Your task to perform on an android device: turn on showing notifications on the lock screen Image 0: 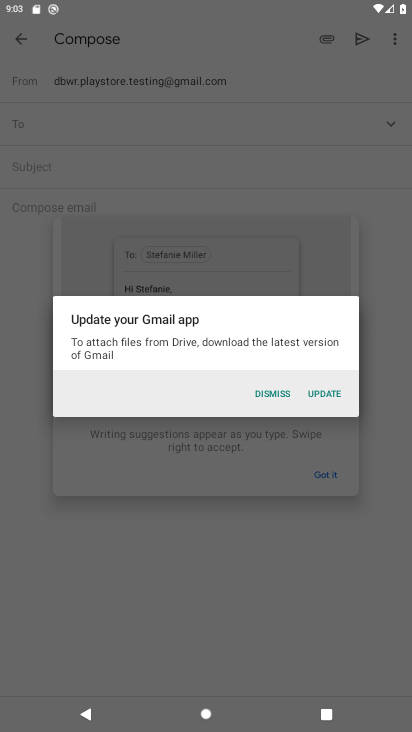
Step 0: press home button
Your task to perform on an android device: turn on showing notifications on the lock screen Image 1: 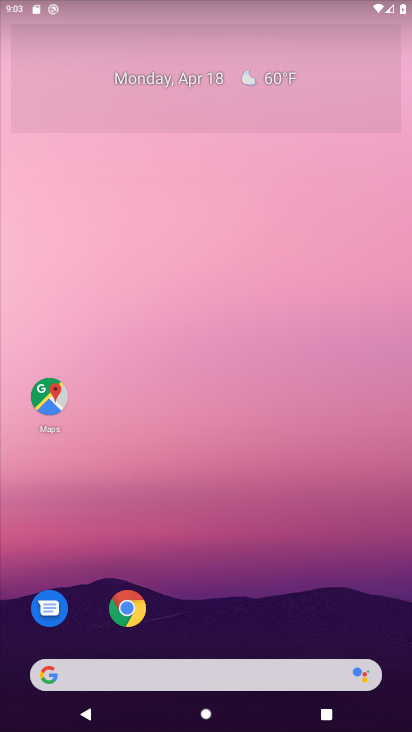
Step 1: drag from (338, 531) to (320, 184)
Your task to perform on an android device: turn on showing notifications on the lock screen Image 2: 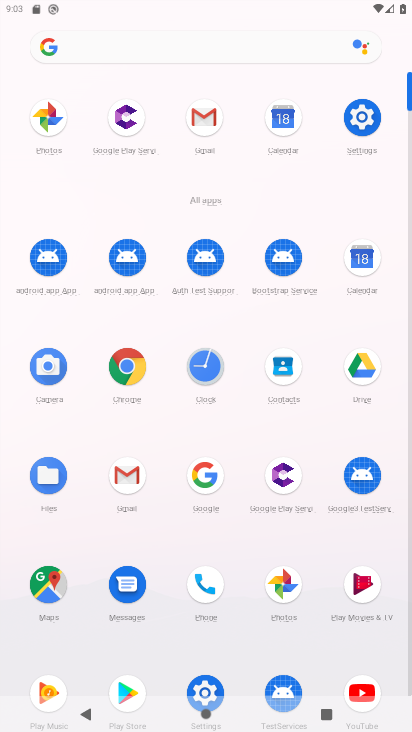
Step 2: click (364, 126)
Your task to perform on an android device: turn on showing notifications on the lock screen Image 3: 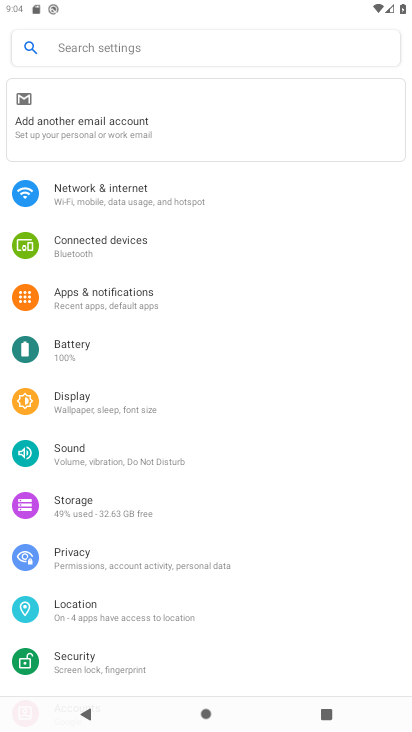
Step 3: click (157, 301)
Your task to perform on an android device: turn on showing notifications on the lock screen Image 4: 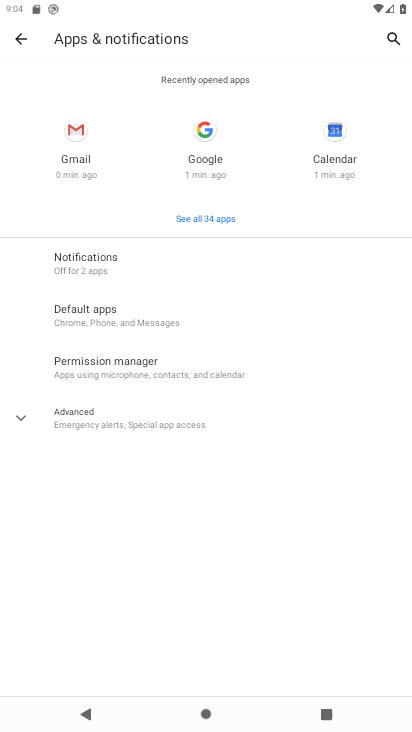
Step 4: click (116, 258)
Your task to perform on an android device: turn on showing notifications on the lock screen Image 5: 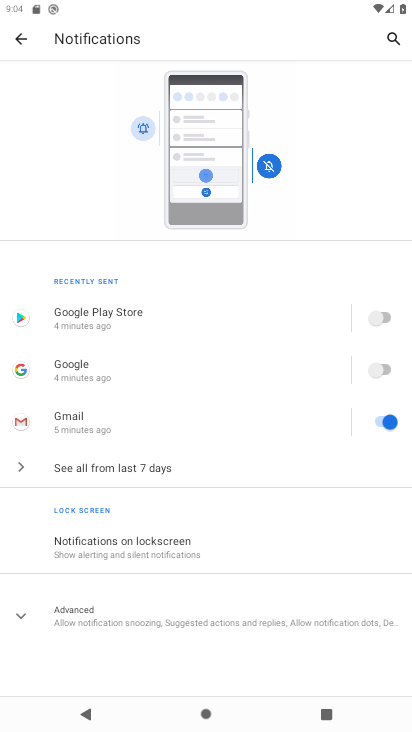
Step 5: click (199, 542)
Your task to perform on an android device: turn on showing notifications on the lock screen Image 6: 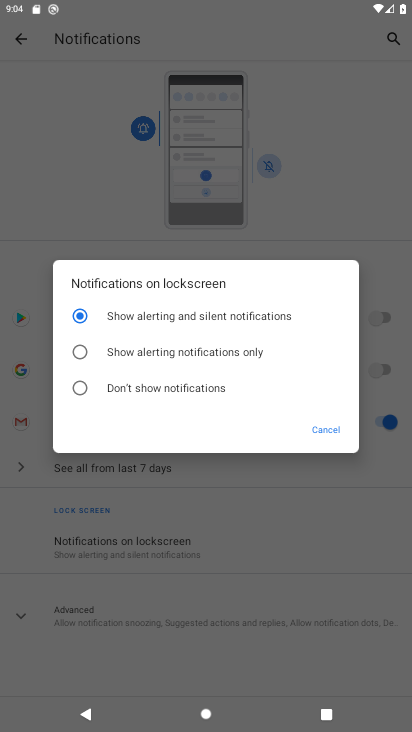
Step 6: task complete